Your task to perform on an android device: turn notification dots off Image 0: 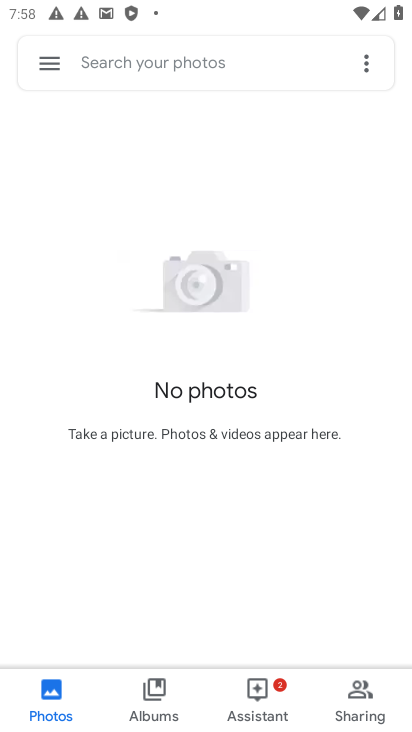
Step 0: press home button
Your task to perform on an android device: turn notification dots off Image 1: 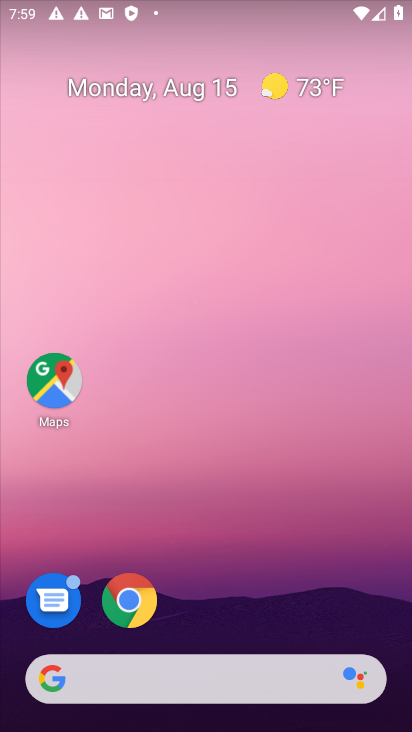
Step 1: drag from (215, 635) to (203, 163)
Your task to perform on an android device: turn notification dots off Image 2: 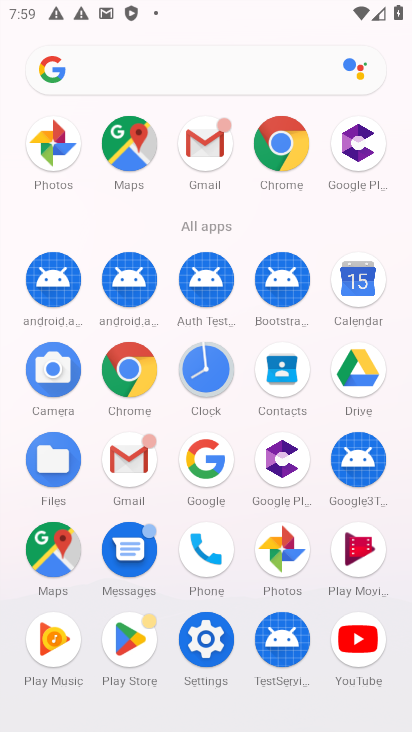
Step 2: click (200, 630)
Your task to perform on an android device: turn notification dots off Image 3: 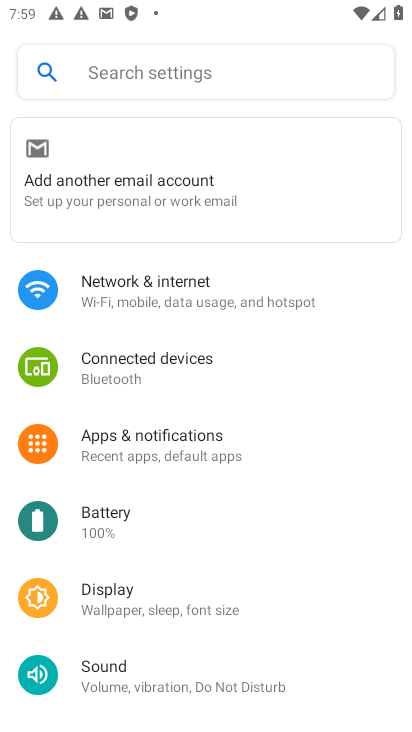
Step 3: click (165, 442)
Your task to perform on an android device: turn notification dots off Image 4: 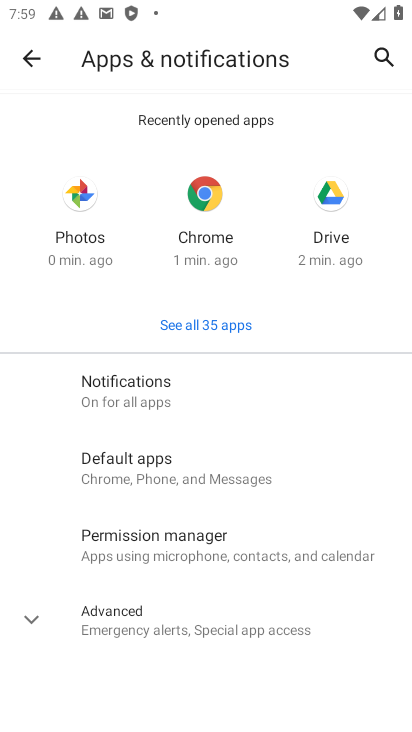
Step 4: click (103, 388)
Your task to perform on an android device: turn notification dots off Image 5: 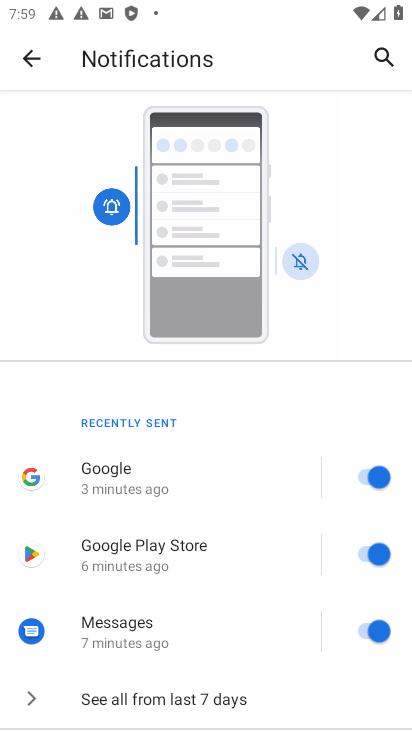
Step 5: drag from (227, 630) to (198, 343)
Your task to perform on an android device: turn notification dots off Image 6: 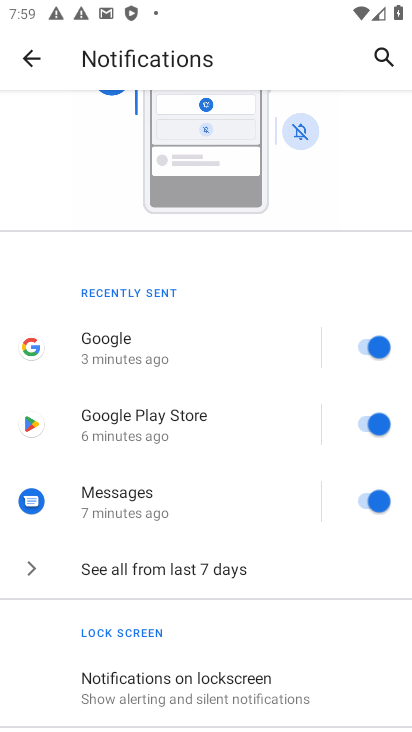
Step 6: drag from (226, 682) to (219, 384)
Your task to perform on an android device: turn notification dots off Image 7: 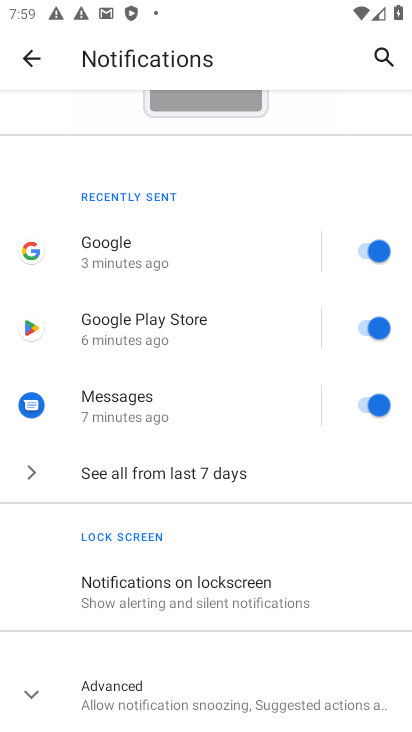
Step 7: click (142, 695)
Your task to perform on an android device: turn notification dots off Image 8: 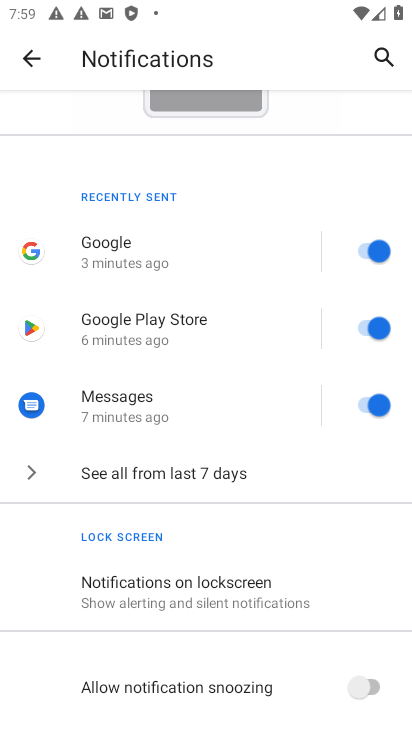
Step 8: drag from (287, 674) to (258, 405)
Your task to perform on an android device: turn notification dots off Image 9: 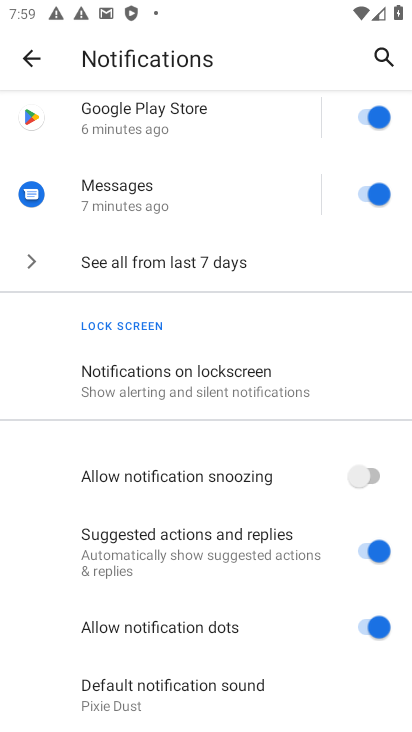
Step 9: click (369, 624)
Your task to perform on an android device: turn notification dots off Image 10: 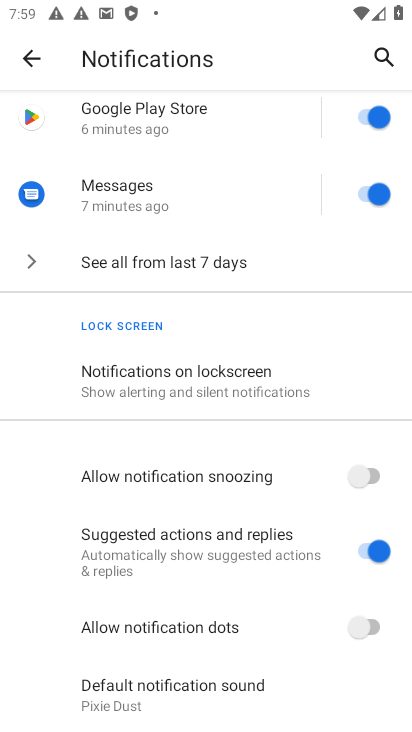
Step 10: task complete